Your task to perform on an android device: turn off priority inbox in the gmail app Image 0: 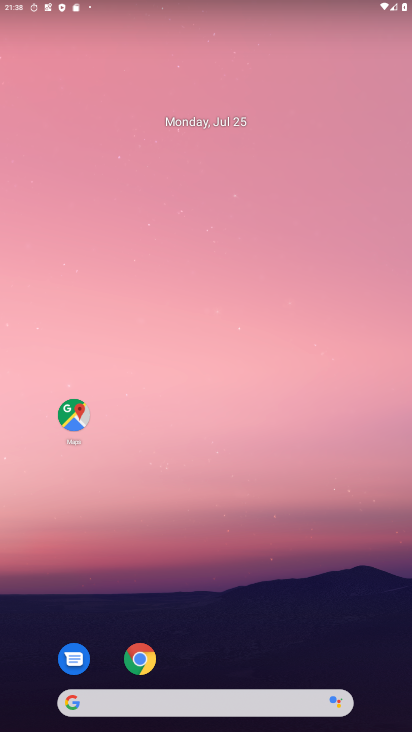
Step 0: drag from (201, 660) to (274, 131)
Your task to perform on an android device: turn off priority inbox in the gmail app Image 1: 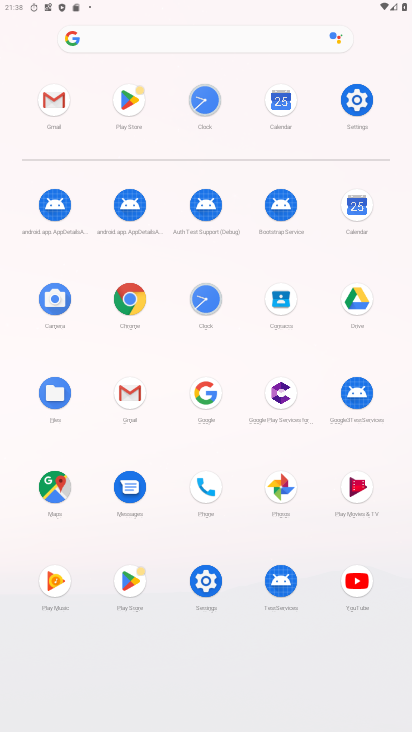
Step 1: click (67, 118)
Your task to perform on an android device: turn off priority inbox in the gmail app Image 2: 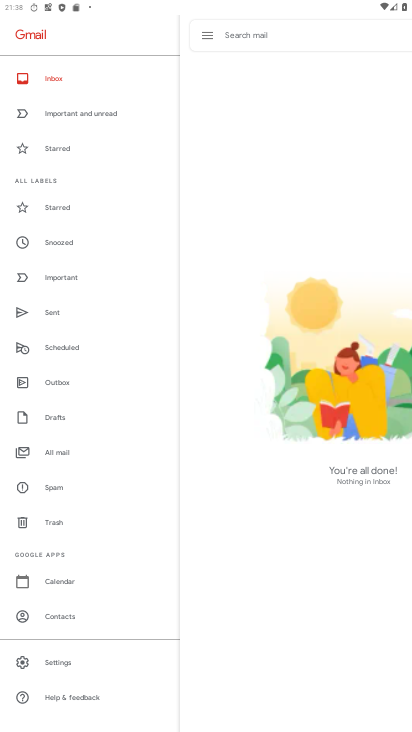
Step 2: click (69, 661)
Your task to perform on an android device: turn off priority inbox in the gmail app Image 3: 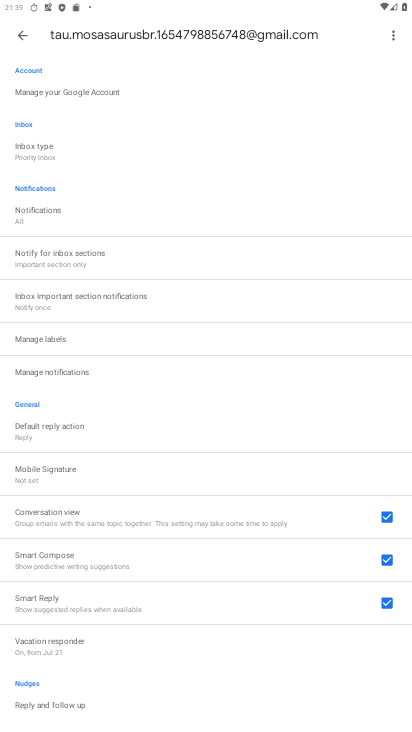
Step 3: drag from (60, 179) to (81, 532)
Your task to perform on an android device: turn off priority inbox in the gmail app Image 4: 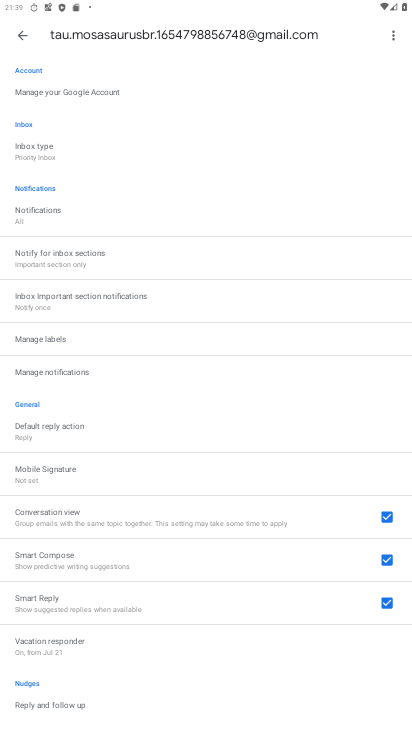
Step 4: click (42, 157)
Your task to perform on an android device: turn off priority inbox in the gmail app Image 5: 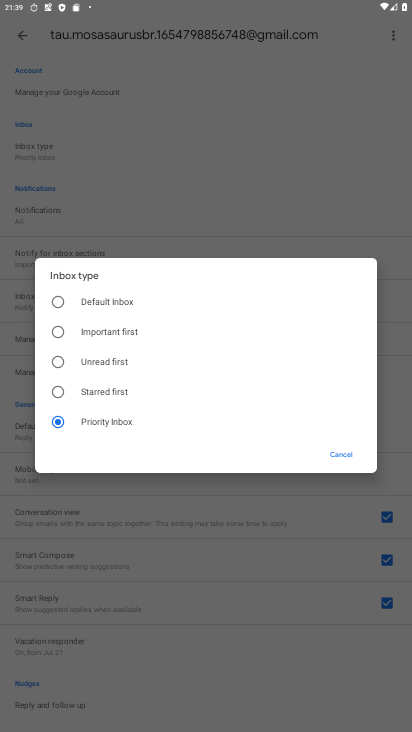
Step 5: click (94, 309)
Your task to perform on an android device: turn off priority inbox in the gmail app Image 6: 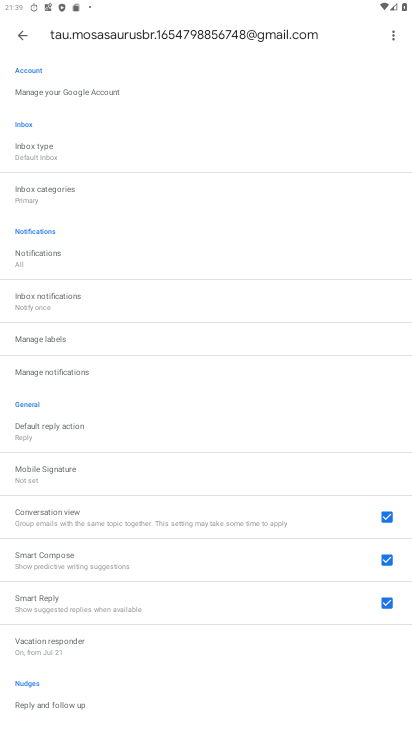
Step 6: task complete